Your task to perform on an android device: Open Google Maps Image 0: 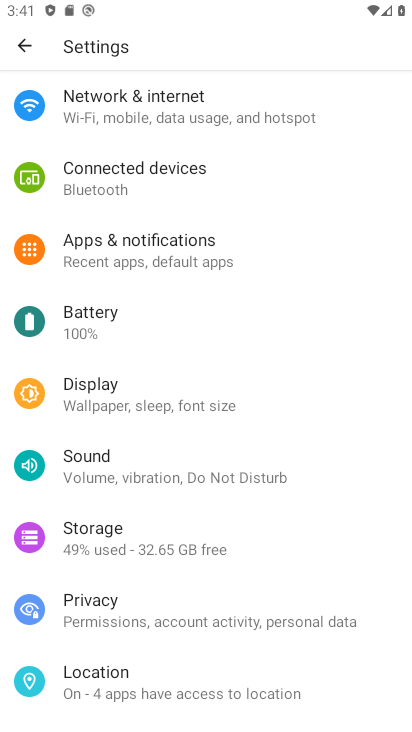
Step 0: press home button
Your task to perform on an android device: Open Google Maps Image 1: 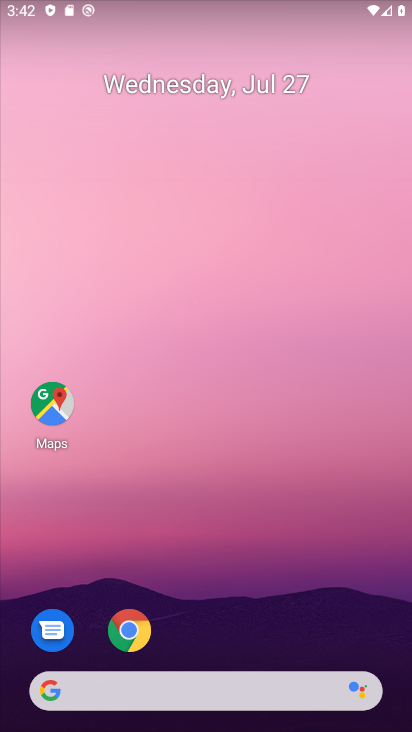
Step 1: drag from (225, 637) to (306, 67)
Your task to perform on an android device: Open Google Maps Image 2: 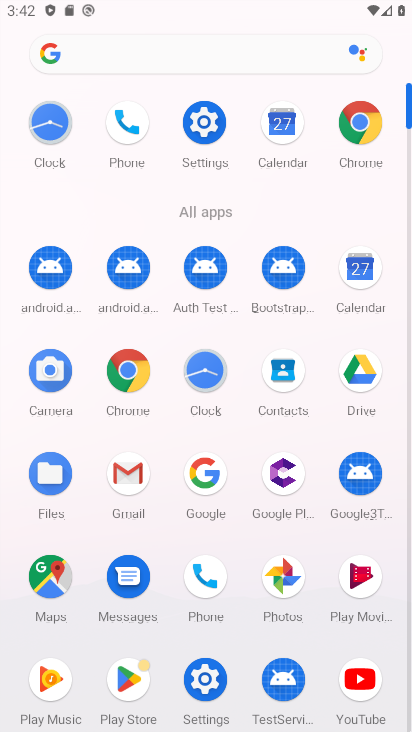
Step 2: click (39, 577)
Your task to perform on an android device: Open Google Maps Image 3: 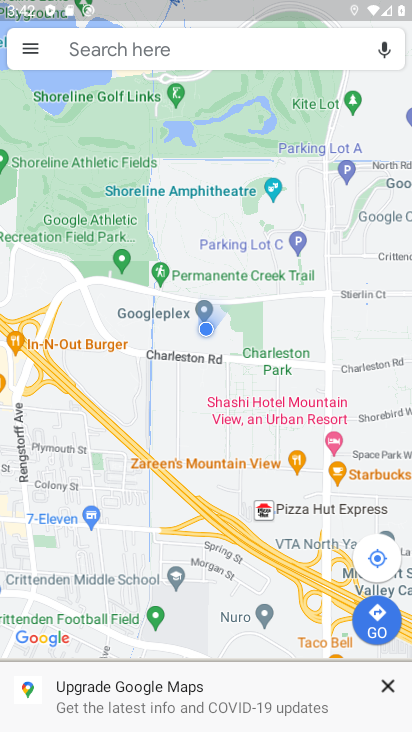
Step 3: task complete